Your task to perform on an android device: What's the weather? Image 0: 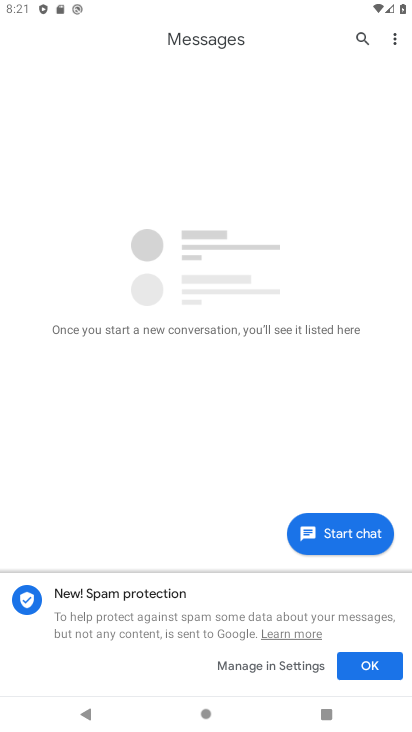
Step 0: press home button
Your task to perform on an android device: What's the weather? Image 1: 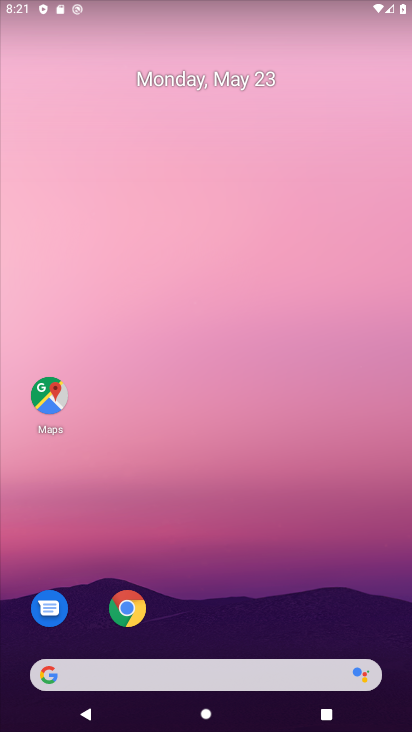
Step 1: drag from (241, 673) to (247, 15)
Your task to perform on an android device: What's the weather? Image 2: 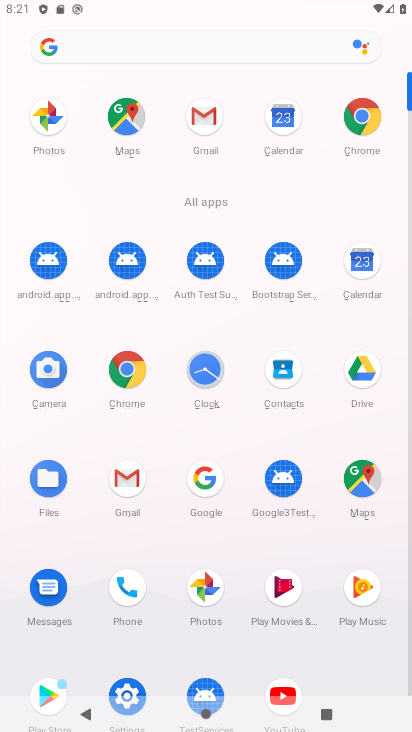
Step 2: click (206, 480)
Your task to perform on an android device: What's the weather? Image 3: 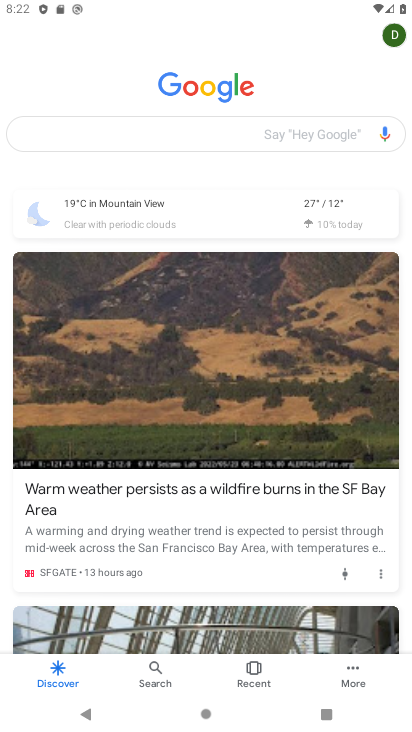
Step 3: click (134, 206)
Your task to perform on an android device: What's the weather? Image 4: 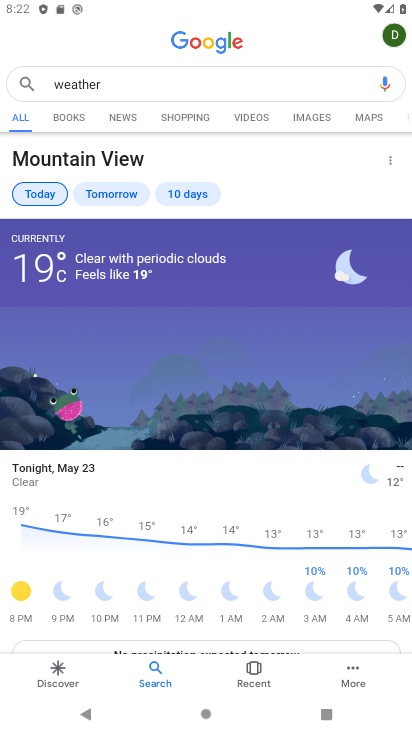
Step 4: click (41, 190)
Your task to perform on an android device: What's the weather? Image 5: 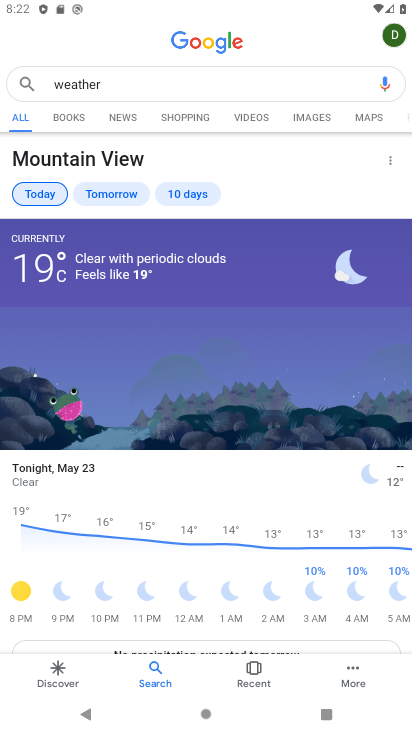
Step 5: click (105, 192)
Your task to perform on an android device: What's the weather? Image 6: 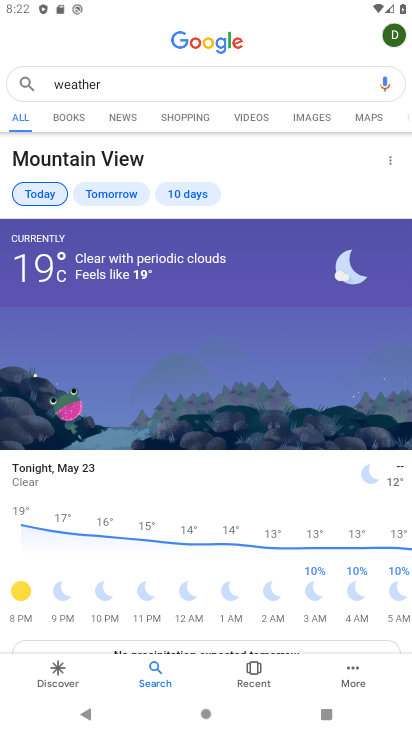
Step 6: click (105, 193)
Your task to perform on an android device: What's the weather? Image 7: 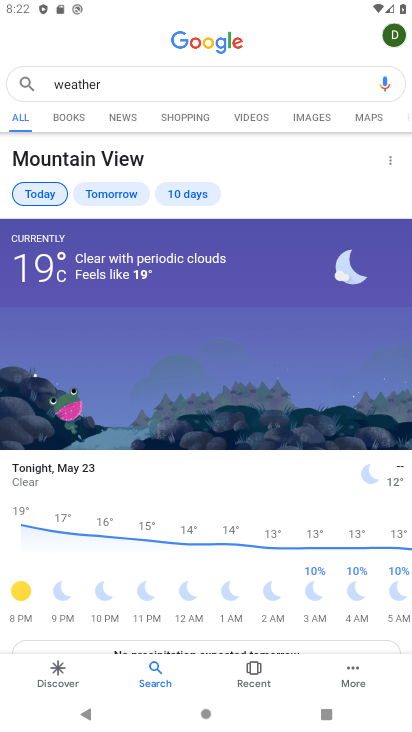
Step 7: click (105, 193)
Your task to perform on an android device: What's the weather? Image 8: 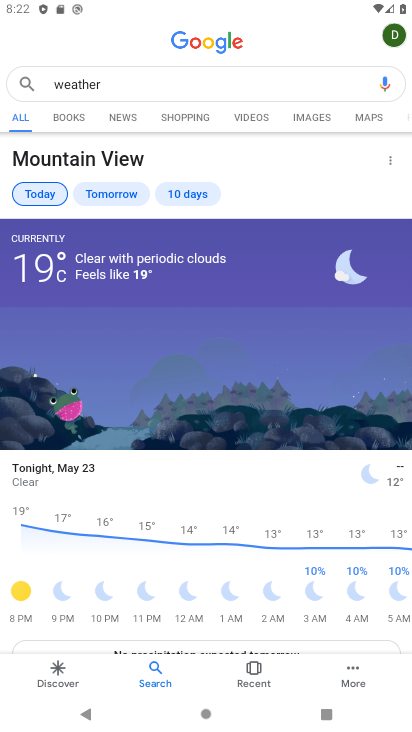
Step 8: task complete